Your task to perform on an android device: check data usage Image 0: 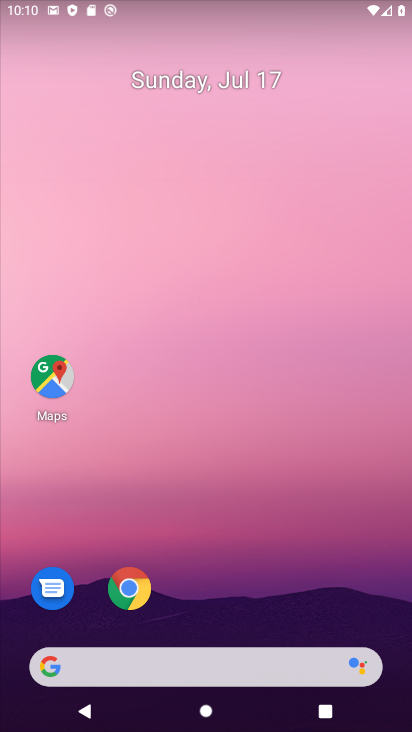
Step 0: press home button
Your task to perform on an android device: check data usage Image 1: 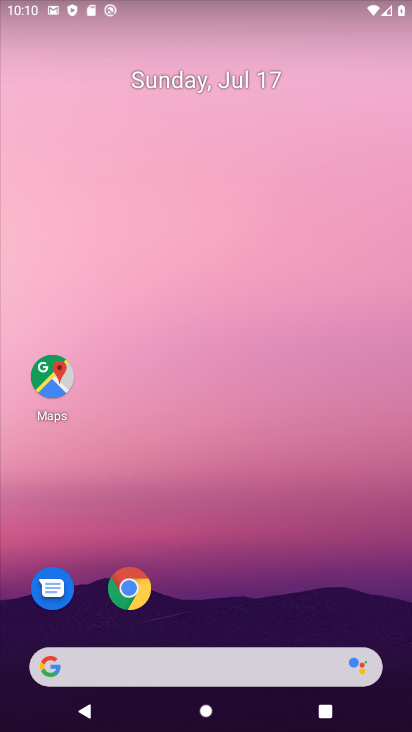
Step 1: press home button
Your task to perform on an android device: check data usage Image 2: 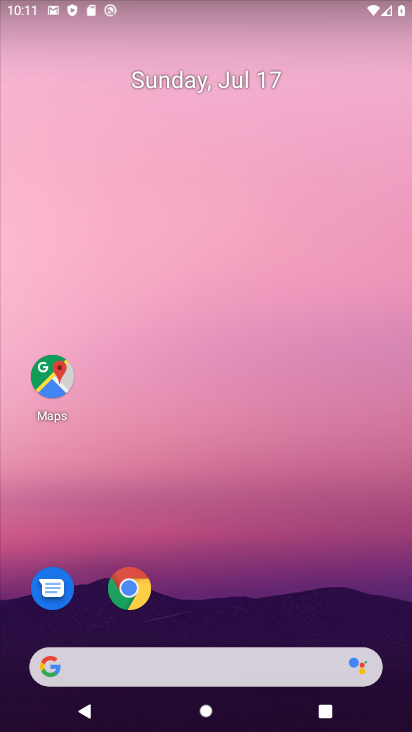
Step 2: click (134, 583)
Your task to perform on an android device: check data usage Image 3: 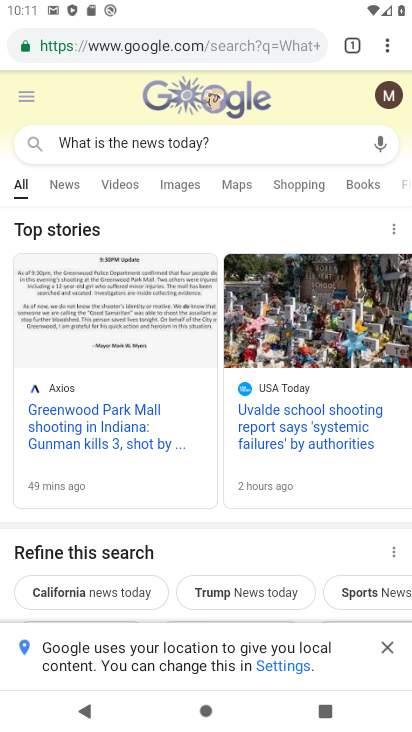
Step 3: click (389, 51)
Your task to perform on an android device: check data usage Image 4: 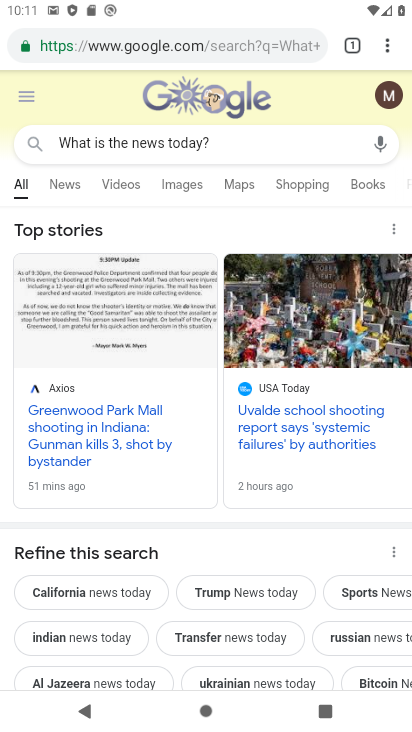
Step 4: drag from (389, 51) to (213, 509)
Your task to perform on an android device: check data usage Image 5: 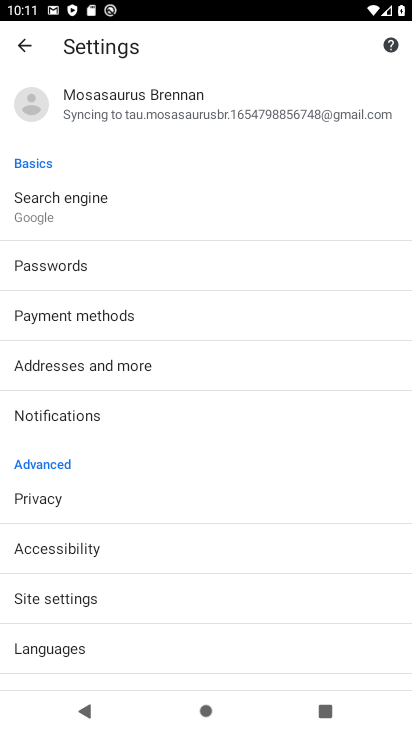
Step 5: drag from (58, 657) to (92, 379)
Your task to perform on an android device: check data usage Image 6: 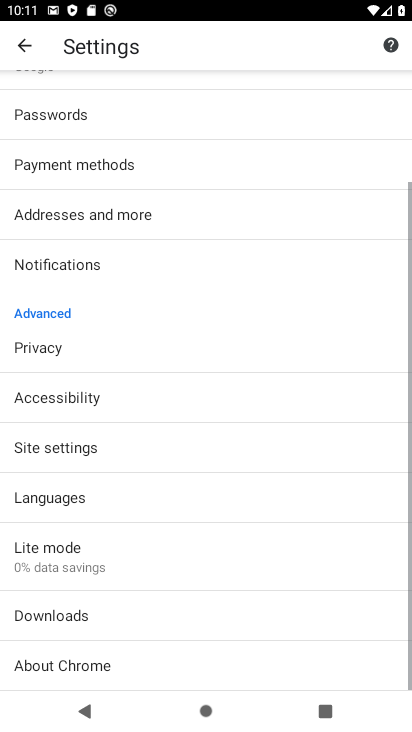
Step 6: click (65, 539)
Your task to perform on an android device: check data usage Image 7: 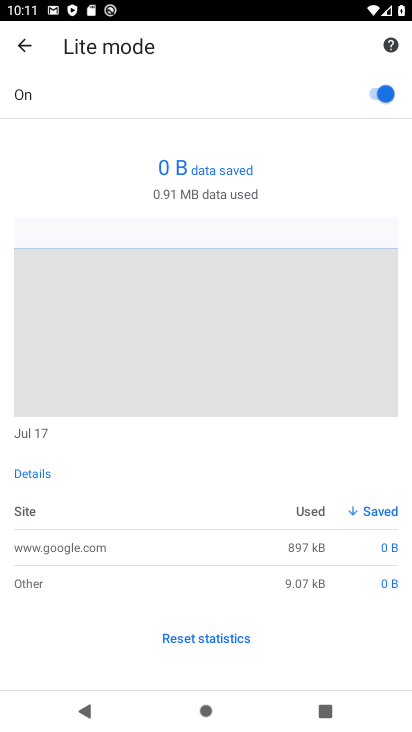
Step 7: task complete